Your task to perform on an android device: toggle airplane mode Image 0: 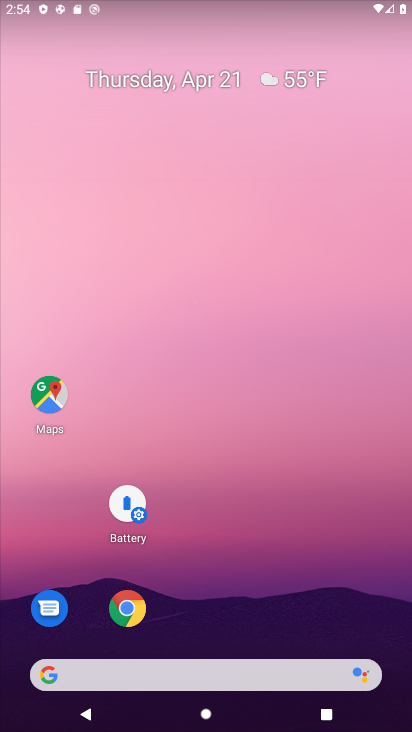
Step 0: drag from (306, 407) to (284, 44)
Your task to perform on an android device: toggle airplane mode Image 1: 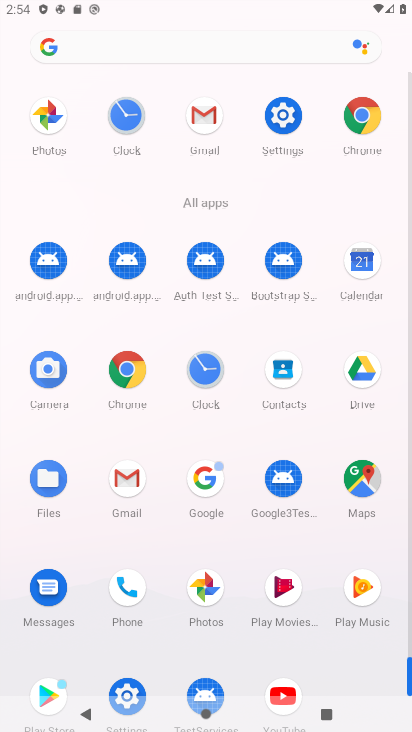
Step 1: click (301, 126)
Your task to perform on an android device: toggle airplane mode Image 2: 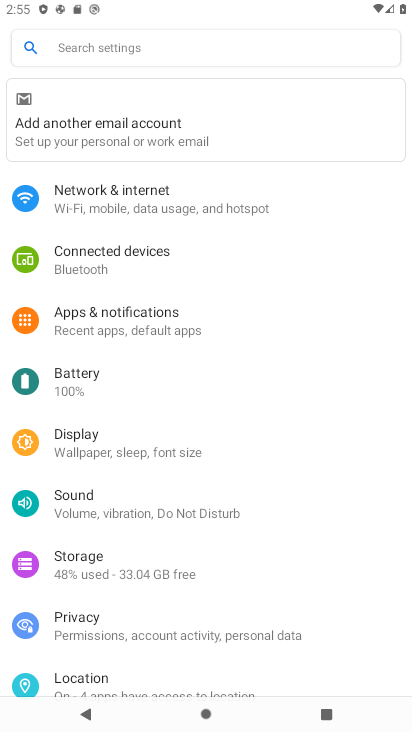
Step 2: click (179, 196)
Your task to perform on an android device: toggle airplane mode Image 3: 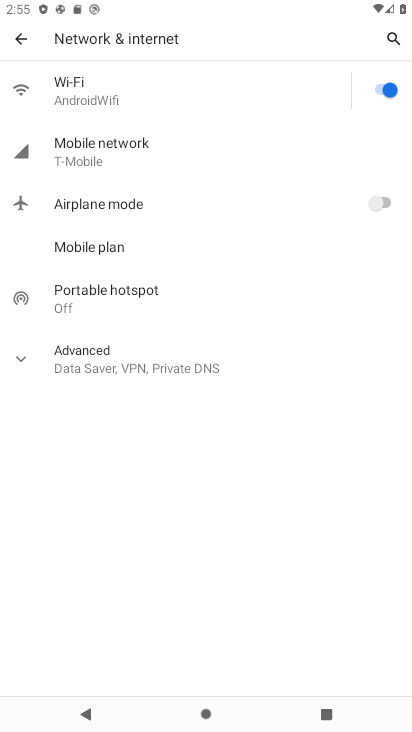
Step 3: click (376, 209)
Your task to perform on an android device: toggle airplane mode Image 4: 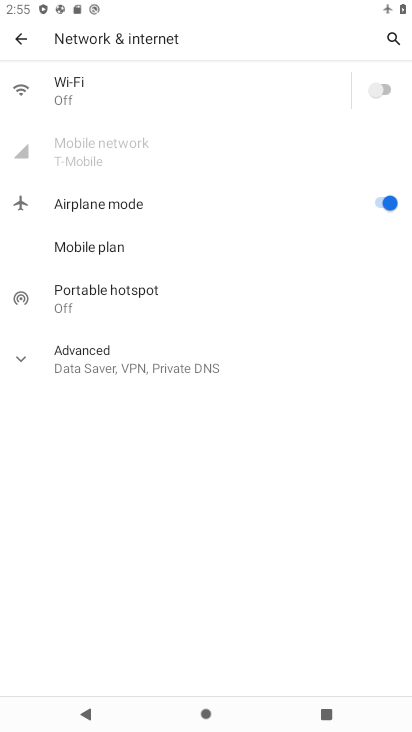
Step 4: task complete